Your task to perform on an android device: star an email in the gmail app Image 0: 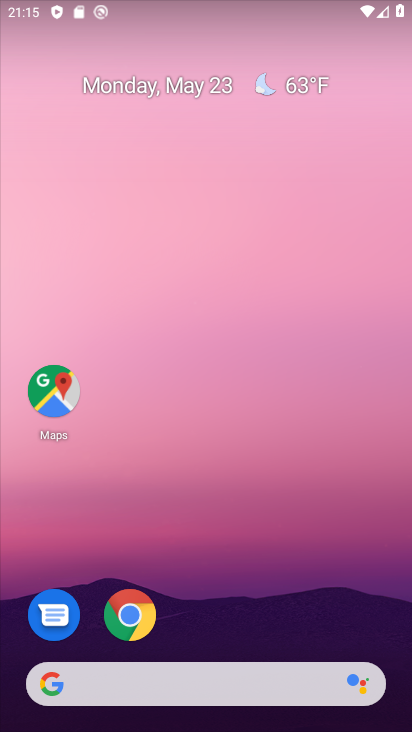
Step 0: drag from (213, 589) to (242, 143)
Your task to perform on an android device: star an email in the gmail app Image 1: 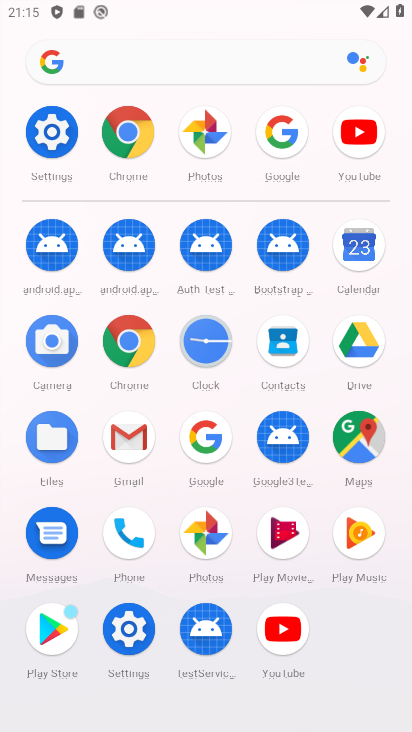
Step 1: click (124, 440)
Your task to perform on an android device: star an email in the gmail app Image 2: 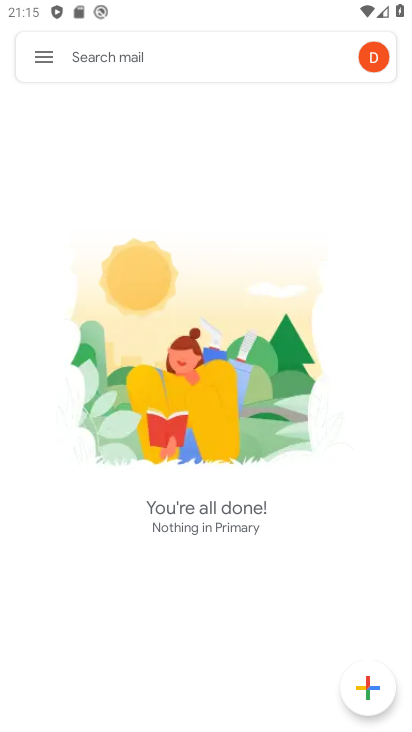
Step 2: click (31, 56)
Your task to perform on an android device: star an email in the gmail app Image 3: 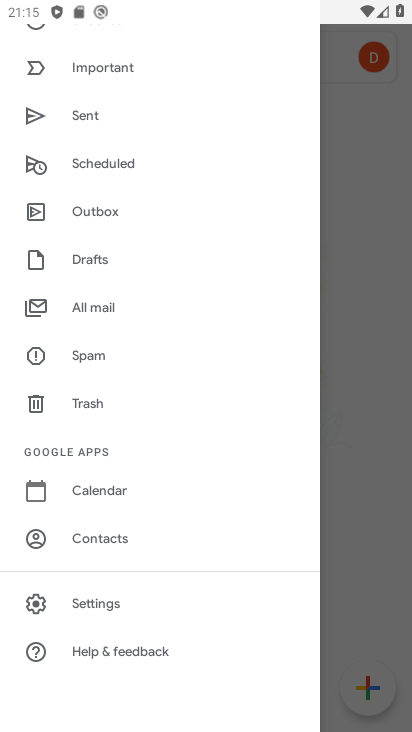
Step 3: click (92, 306)
Your task to perform on an android device: star an email in the gmail app Image 4: 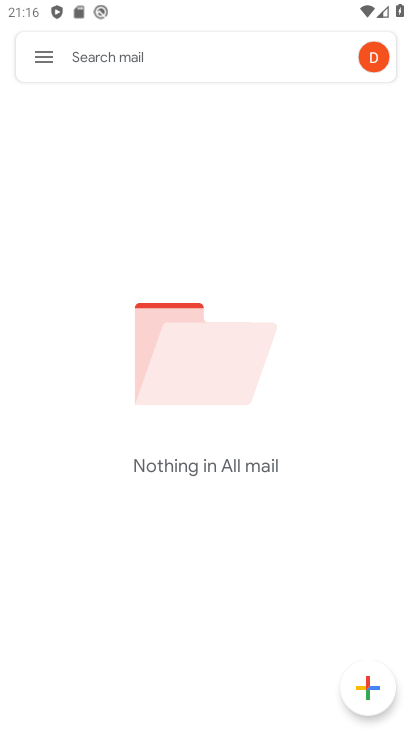
Step 4: task complete